Your task to perform on an android device: Open network settings Image 0: 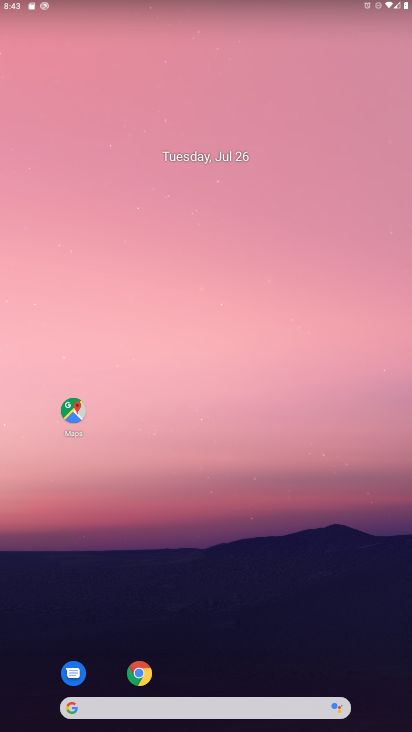
Step 0: drag from (363, 617) to (125, 29)
Your task to perform on an android device: Open network settings Image 1: 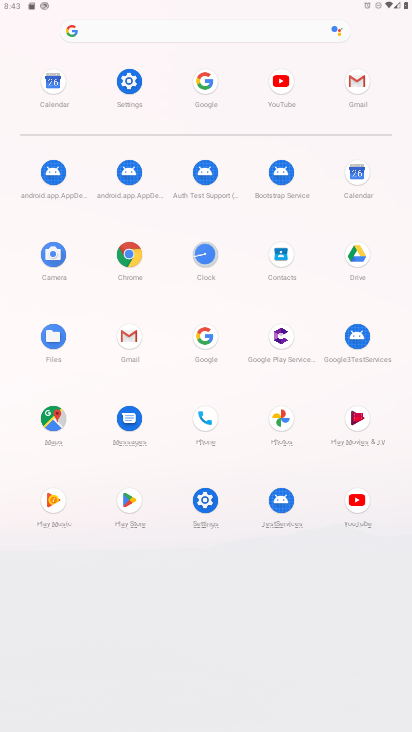
Step 1: click (132, 71)
Your task to perform on an android device: Open network settings Image 2: 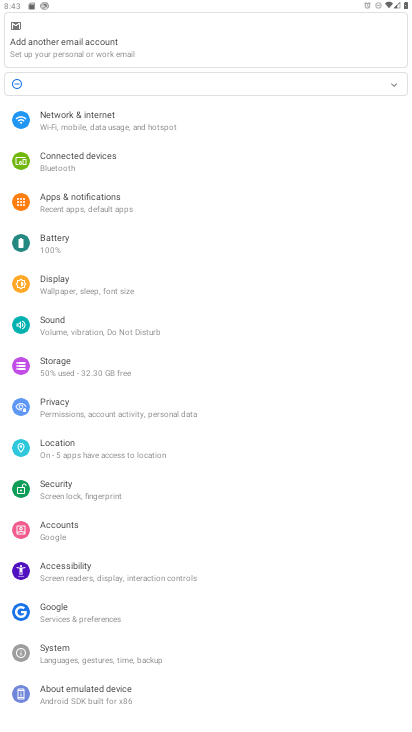
Step 2: click (78, 121)
Your task to perform on an android device: Open network settings Image 3: 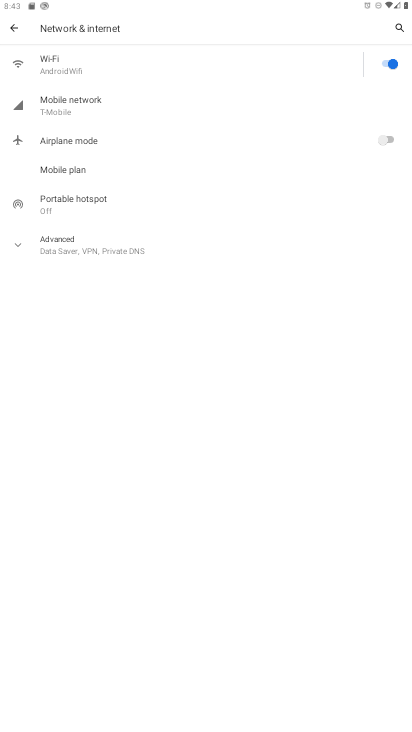
Step 3: task complete